Your task to perform on an android device: toggle sleep mode Image 0: 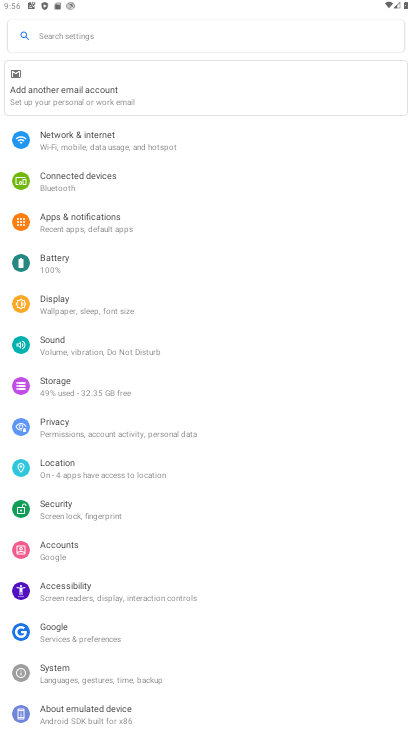
Step 0: press home button
Your task to perform on an android device: toggle sleep mode Image 1: 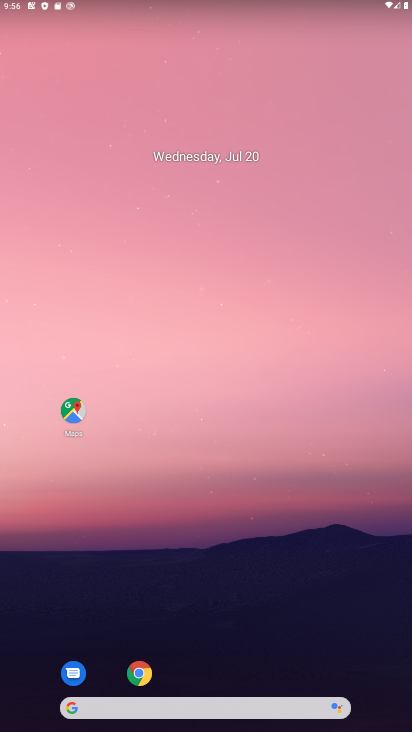
Step 1: drag from (227, 705) to (206, 311)
Your task to perform on an android device: toggle sleep mode Image 2: 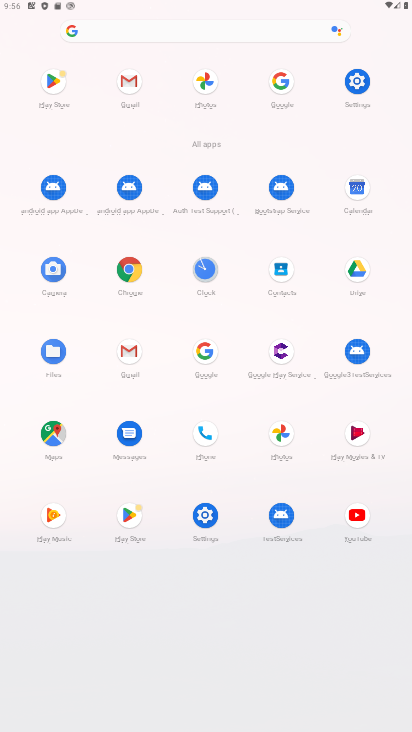
Step 2: click (207, 516)
Your task to perform on an android device: toggle sleep mode Image 3: 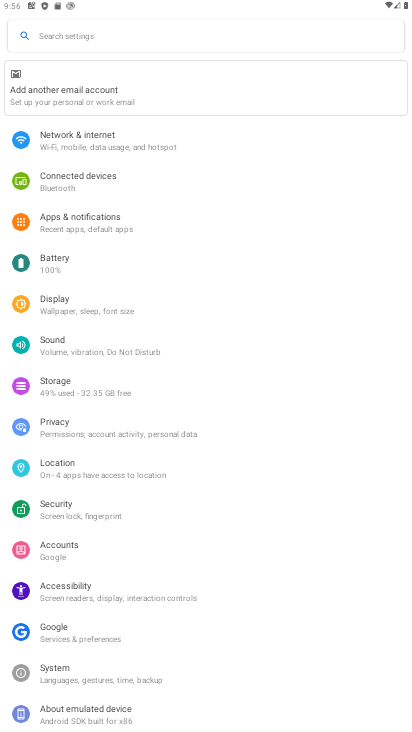
Step 3: click (59, 307)
Your task to perform on an android device: toggle sleep mode Image 4: 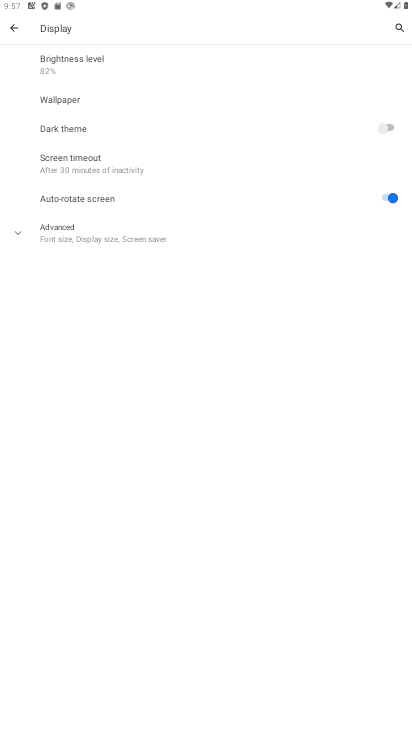
Step 4: click (116, 169)
Your task to perform on an android device: toggle sleep mode Image 5: 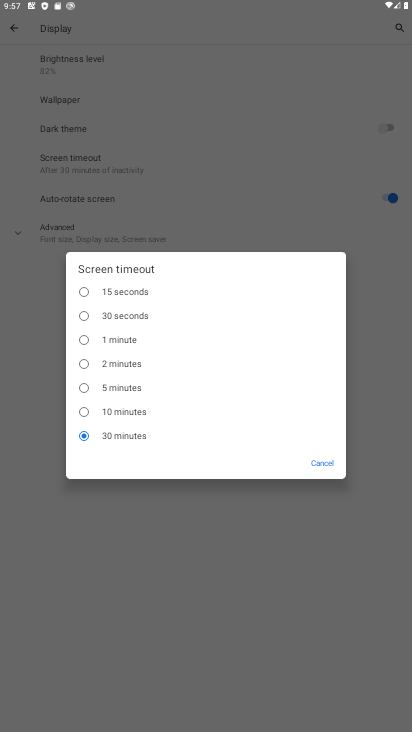
Step 5: click (326, 463)
Your task to perform on an android device: toggle sleep mode Image 6: 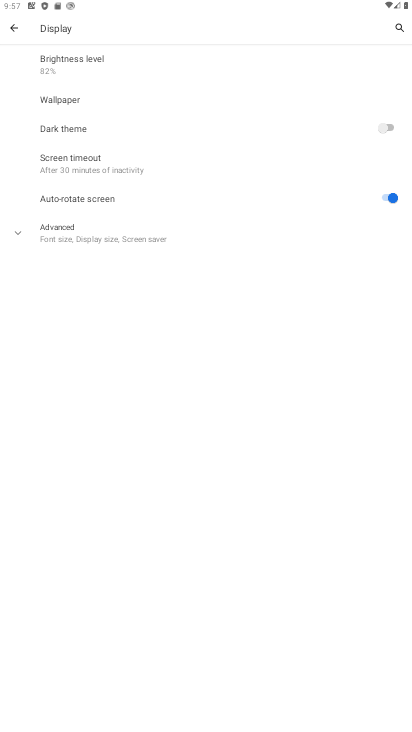
Step 6: task complete